Your task to perform on an android device: Open Google Image 0: 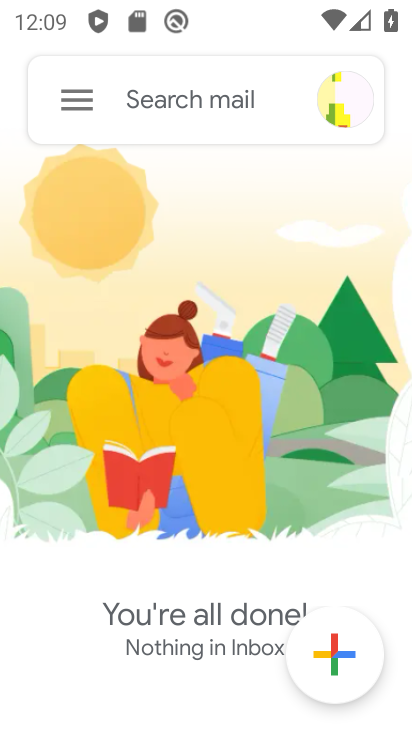
Step 0: press home button
Your task to perform on an android device: Open Google Image 1: 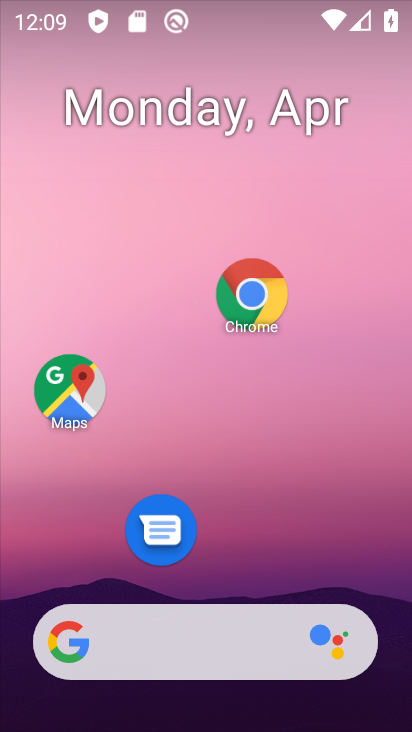
Step 1: drag from (157, 576) to (204, 225)
Your task to perform on an android device: Open Google Image 2: 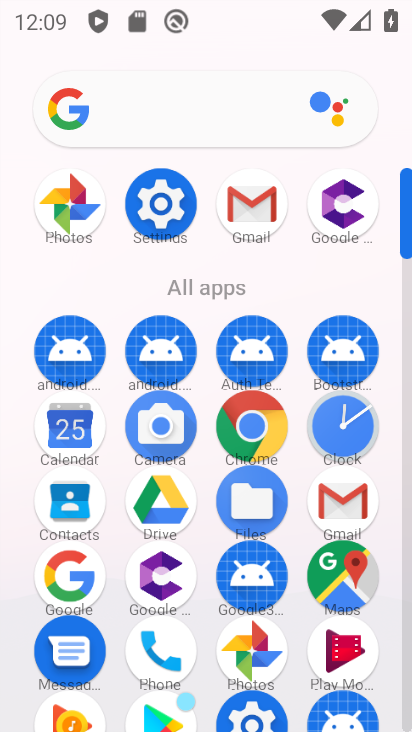
Step 2: click (65, 570)
Your task to perform on an android device: Open Google Image 3: 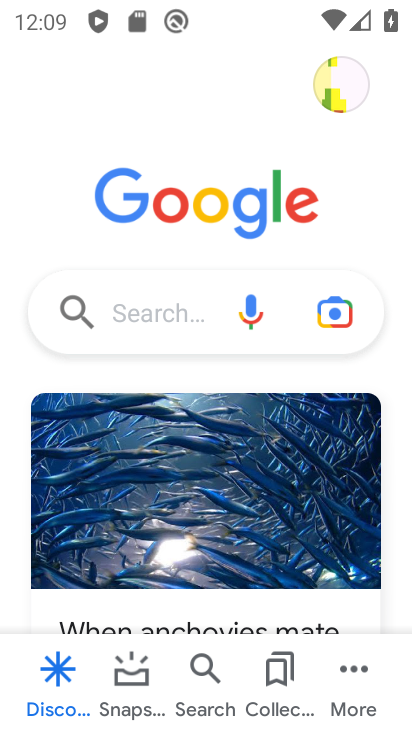
Step 3: task complete